Your task to perform on an android device: When is my next meeting? Image 0: 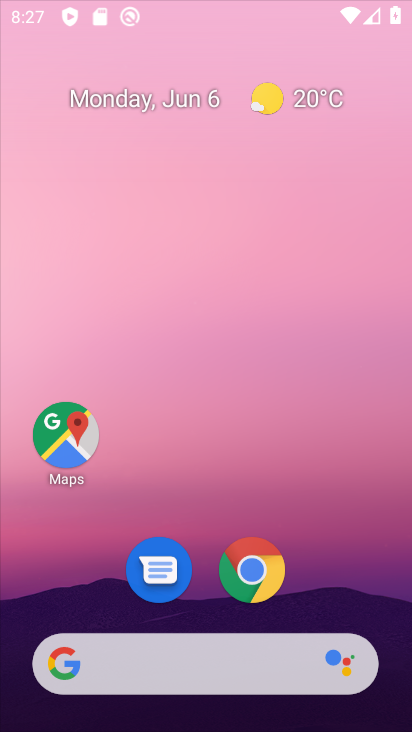
Step 0: drag from (224, 327) to (244, 143)
Your task to perform on an android device: When is my next meeting? Image 1: 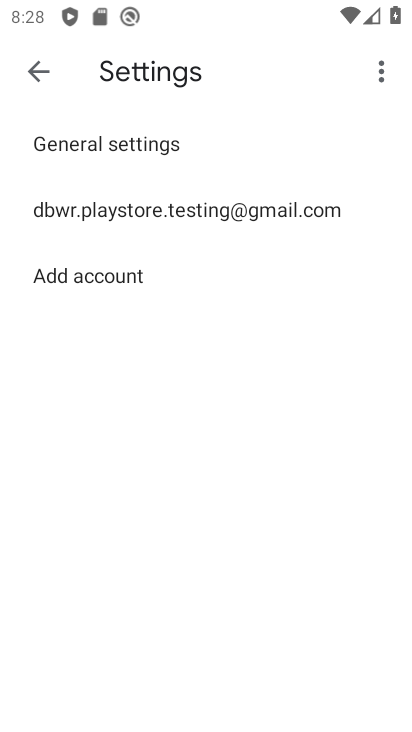
Step 1: press back button
Your task to perform on an android device: When is my next meeting? Image 2: 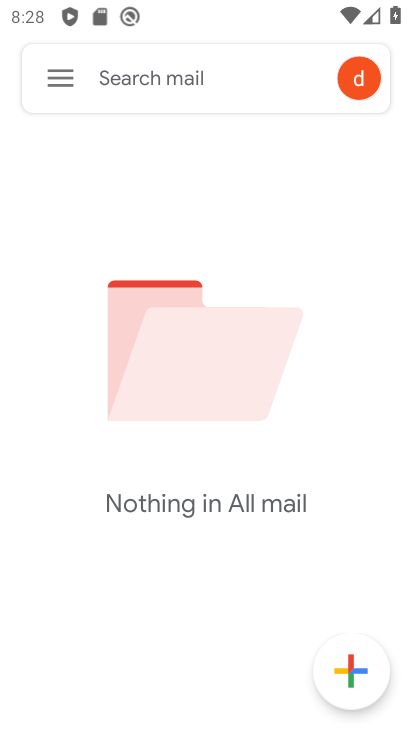
Step 2: press back button
Your task to perform on an android device: When is my next meeting? Image 3: 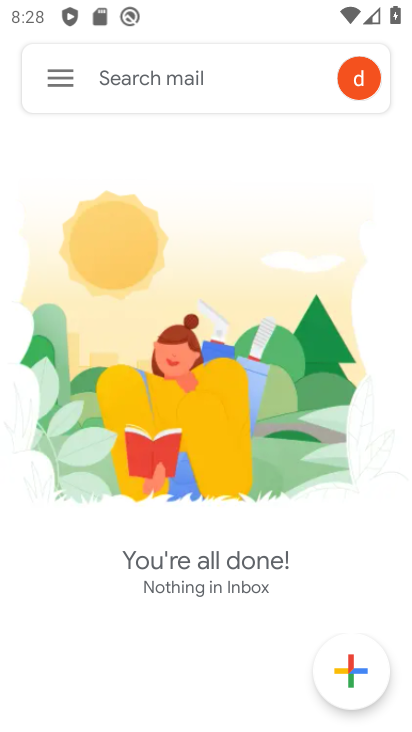
Step 3: press back button
Your task to perform on an android device: When is my next meeting? Image 4: 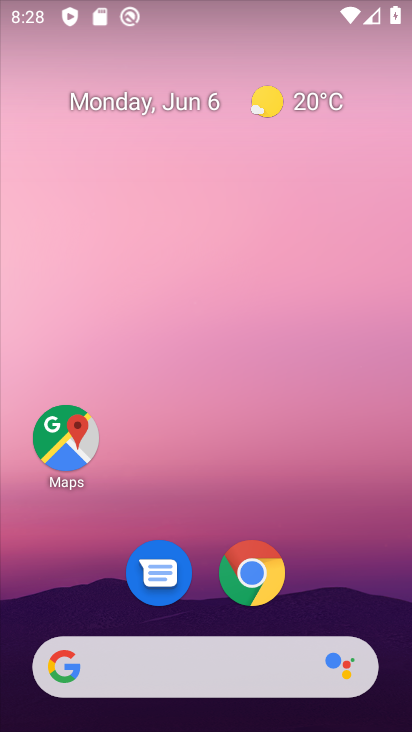
Step 4: drag from (191, 515) to (238, 29)
Your task to perform on an android device: When is my next meeting? Image 5: 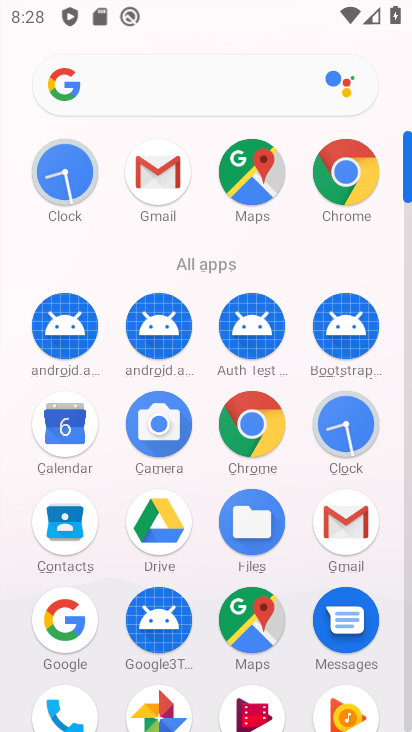
Step 5: click (68, 440)
Your task to perform on an android device: When is my next meeting? Image 6: 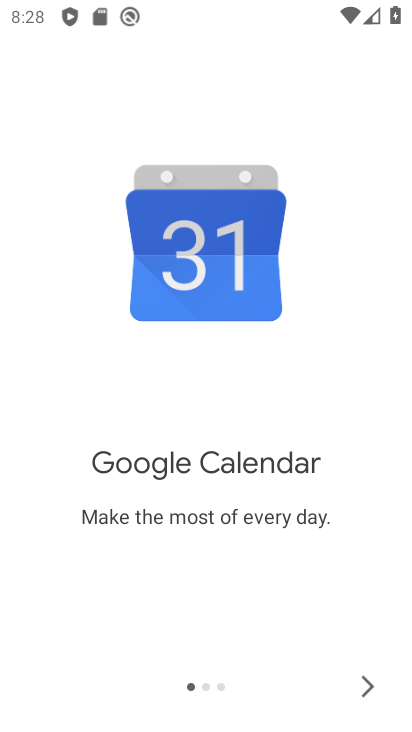
Step 6: click (358, 690)
Your task to perform on an android device: When is my next meeting? Image 7: 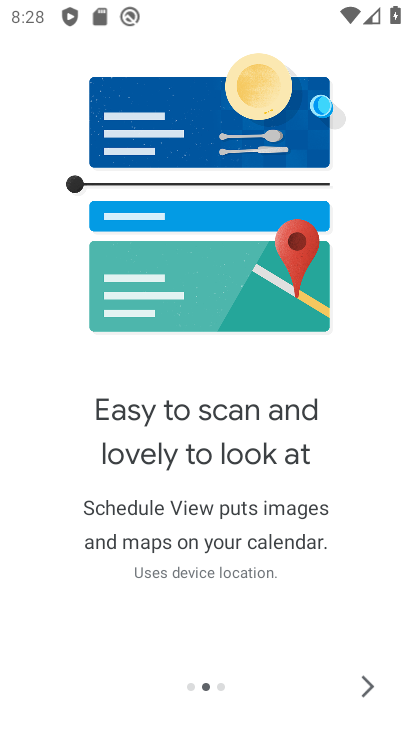
Step 7: click (358, 690)
Your task to perform on an android device: When is my next meeting? Image 8: 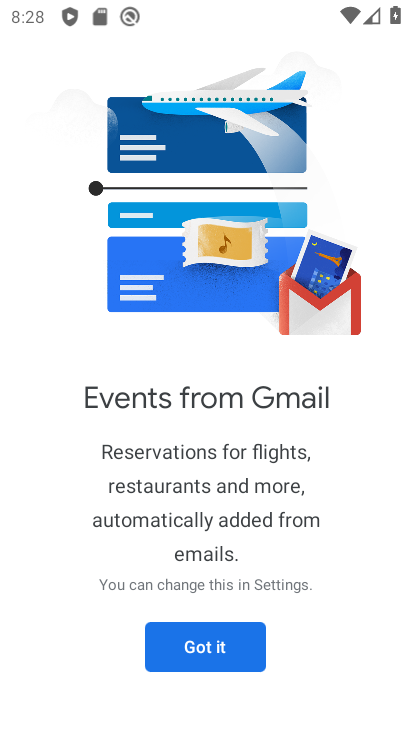
Step 8: click (235, 654)
Your task to perform on an android device: When is my next meeting? Image 9: 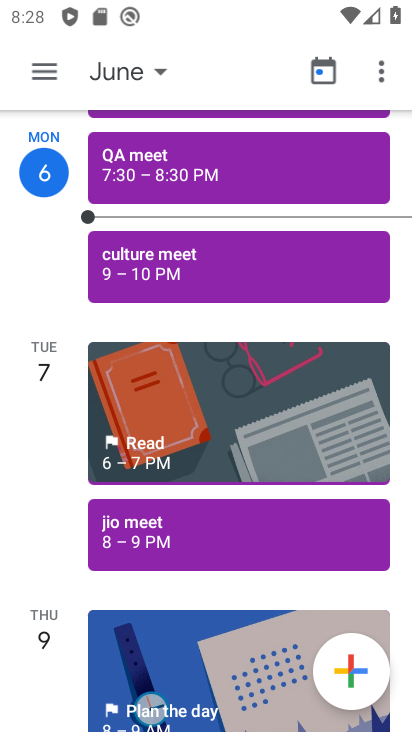
Step 9: drag from (174, 669) to (282, 148)
Your task to perform on an android device: When is my next meeting? Image 10: 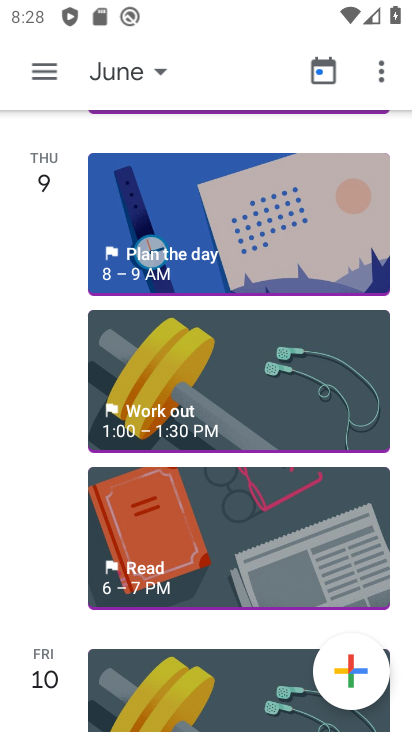
Step 10: drag from (224, 642) to (256, 395)
Your task to perform on an android device: When is my next meeting? Image 11: 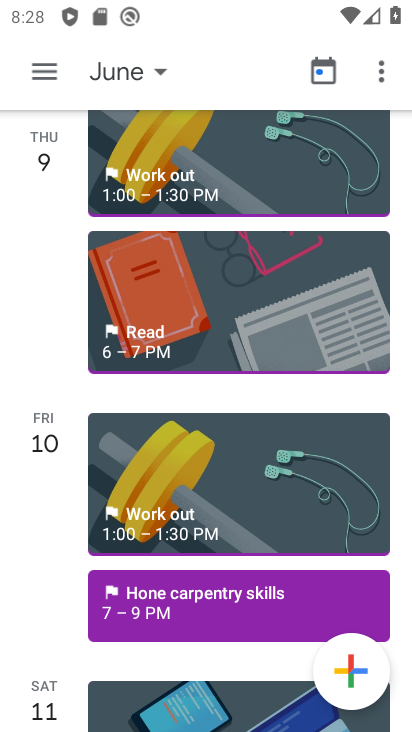
Step 11: drag from (209, 666) to (216, 171)
Your task to perform on an android device: When is my next meeting? Image 12: 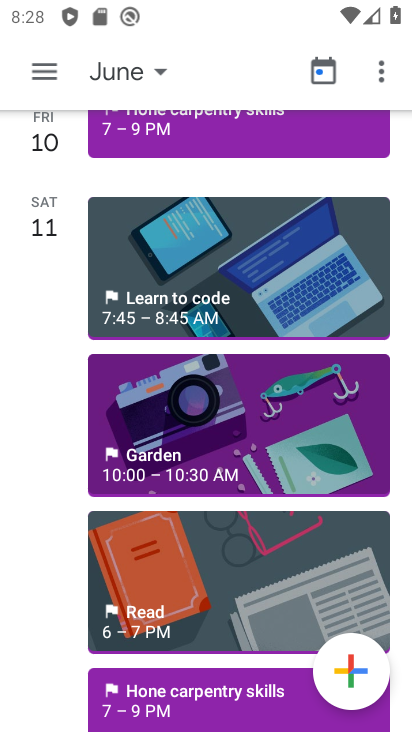
Step 12: drag from (169, 590) to (222, 170)
Your task to perform on an android device: When is my next meeting? Image 13: 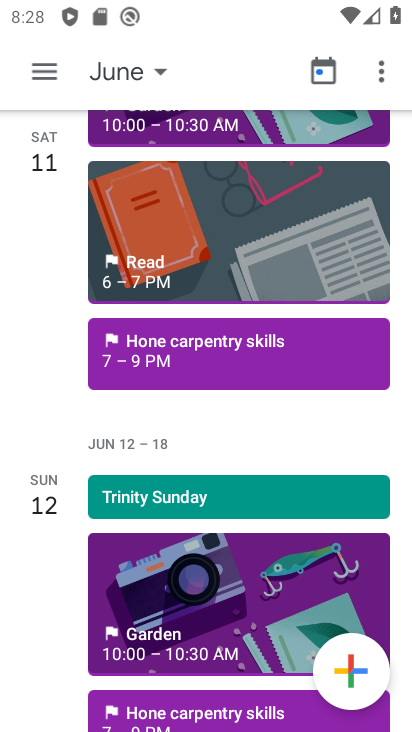
Step 13: drag from (201, 617) to (258, 189)
Your task to perform on an android device: When is my next meeting? Image 14: 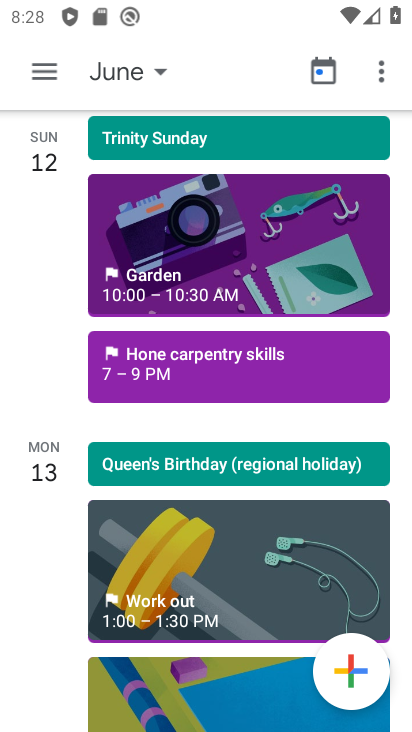
Step 14: drag from (198, 695) to (261, 209)
Your task to perform on an android device: When is my next meeting? Image 15: 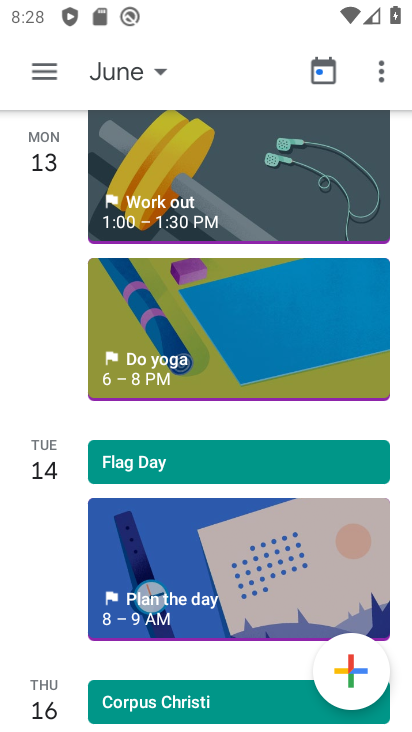
Step 15: drag from (155, 642) to (245, 180)
Your task to perform on an android device: When is my next meeting? Image 16: 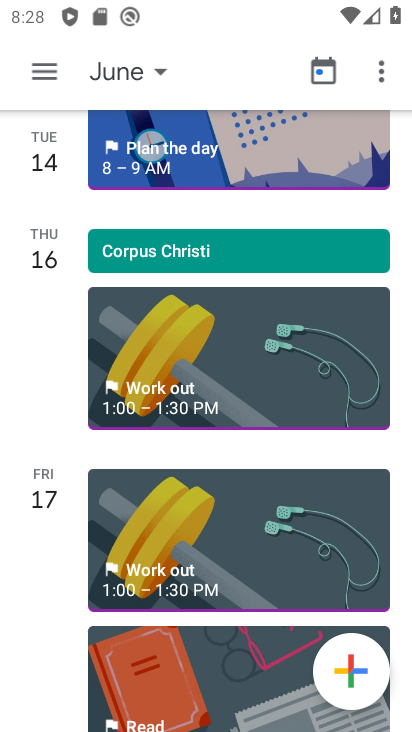
Step 16: drag from (154, 682) to (212, 301)
Your task to perform on an android device: When is my next meeting? Image 17: 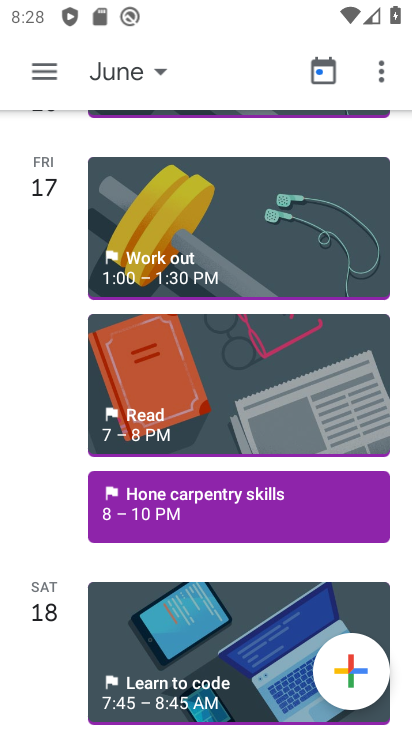
Step 17: drag from (172, 673) to (264, 179)
Your task to perform on an android device: When is my next meeting? Image 18: 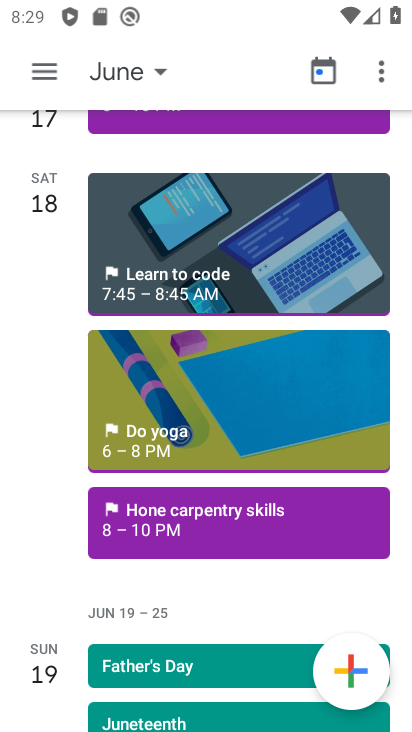
Step 18: drag from (179, 653) to (262, 200)
Your task to perform on an android device: When is my next meeting? Image 19: 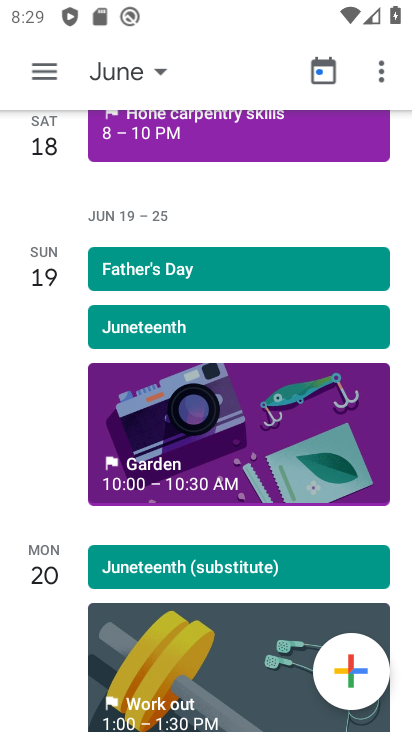
Step 19: drag from (167, 620) to (248, 163)
Your task to perform on an android device: When is my next meeting? Image 20: 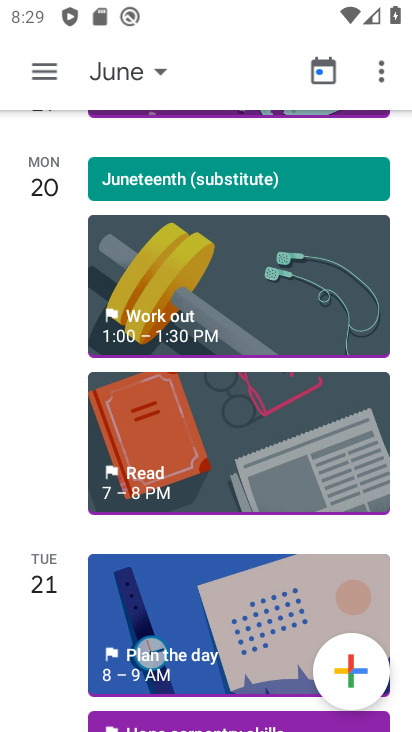
Step 20: drag from (151, 661) to (238, 135)
Your task to perform on an android device: When is my next meeting? Image 21: 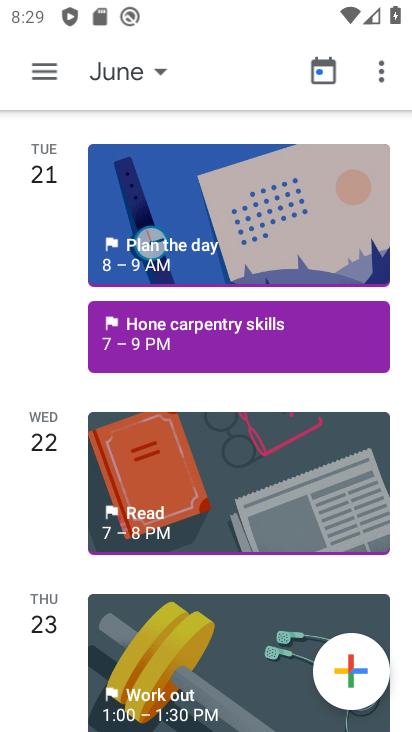
Step 21: drag from (195, 687) to (247, 103)
Your task to perform on an android device: When is my next meeting? Image 22: 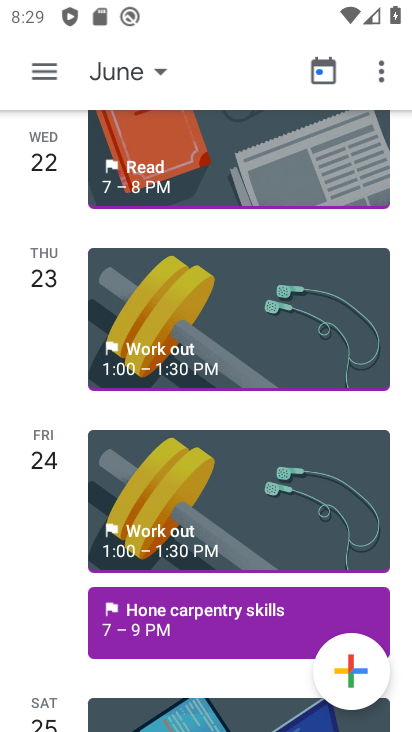
Step 22: drag from (164, 705) to (270, 112)
Your task to perform on an android device: When is my next meeting? Image 23: 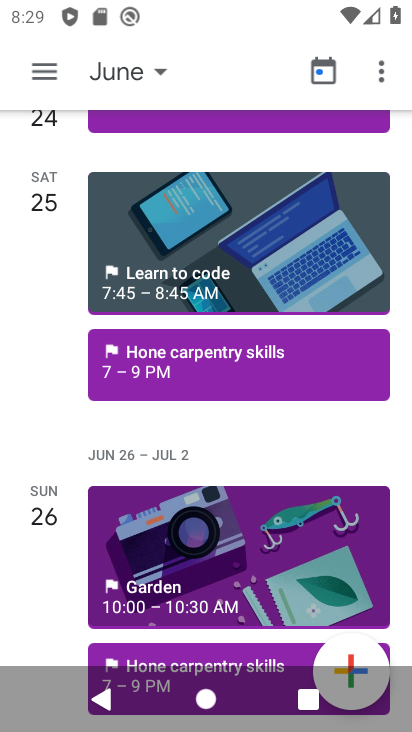
Step 23: drag from (197, 596) to (273, 83)
Your task to perform on an android device: When is my next meeting? Image 24: 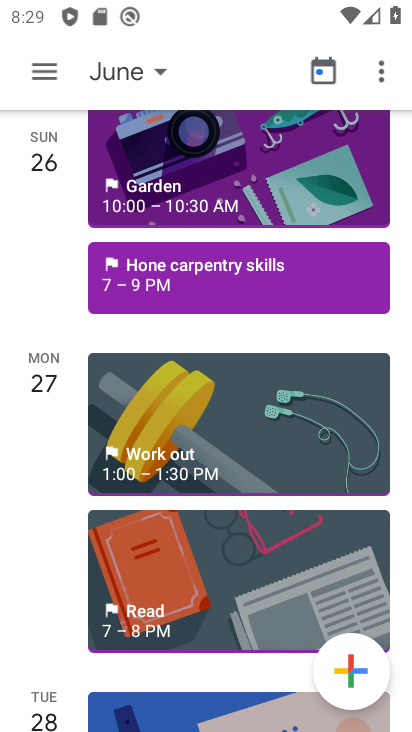
Step 24: drag from (170, 725) to (250, 308)
Your task to perform on an android device: When is my next meeting? Image 25: 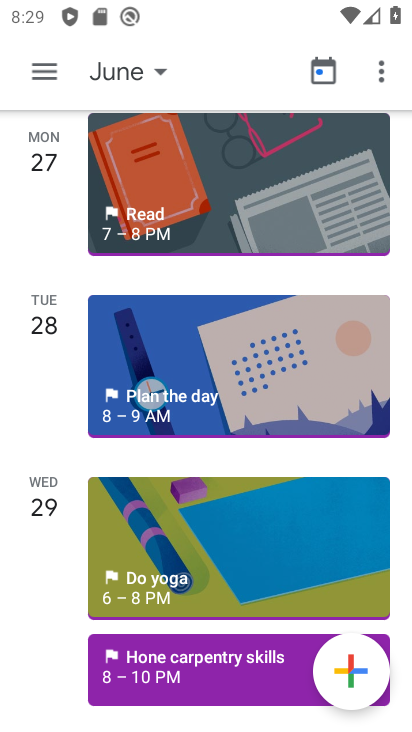
Step 25: click (137, 68)
Your task to perform on an android device: When is my next meeting? Image 26: 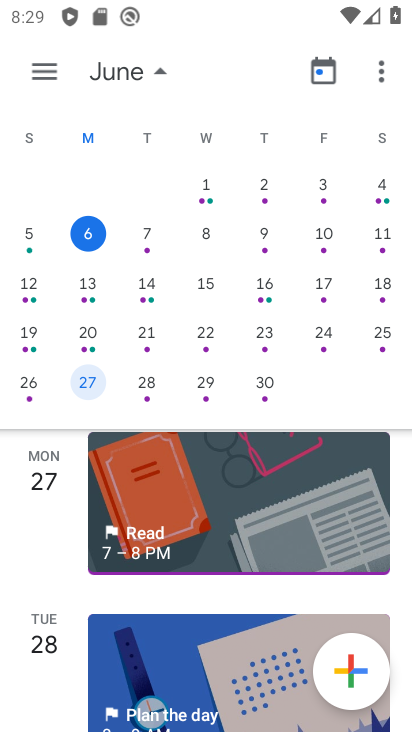
Step 26: click (161, 226)
Your task to perform on an android device: When is my next meeting? Image 27: 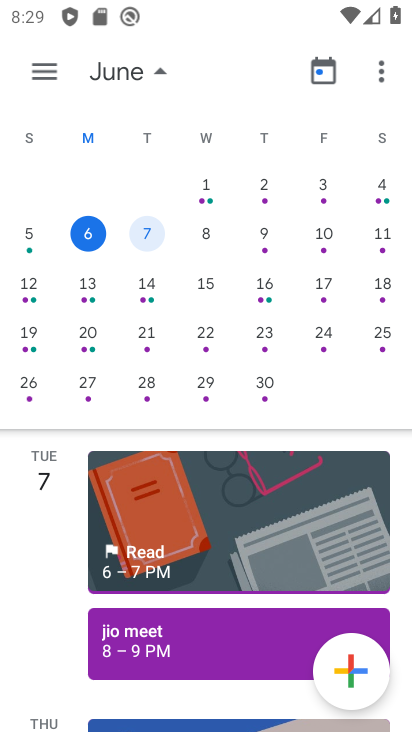
Step 27: click (130, 648)
Your task to perform on an android device: When is my next meeting? Image 28: 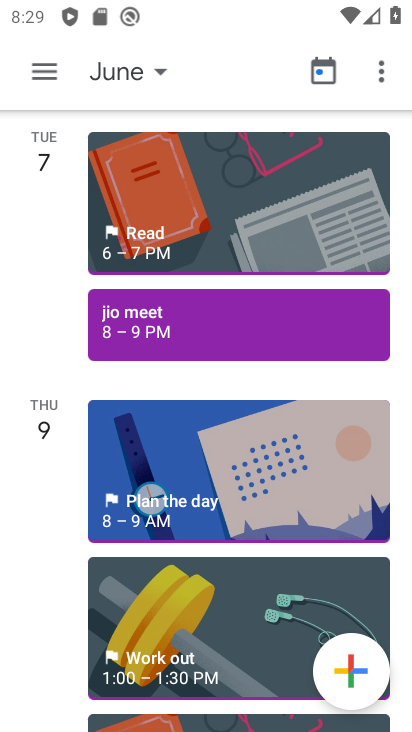
Step 28: task complete